Your task to perform on an android device: Open accessibility settings Image 0: 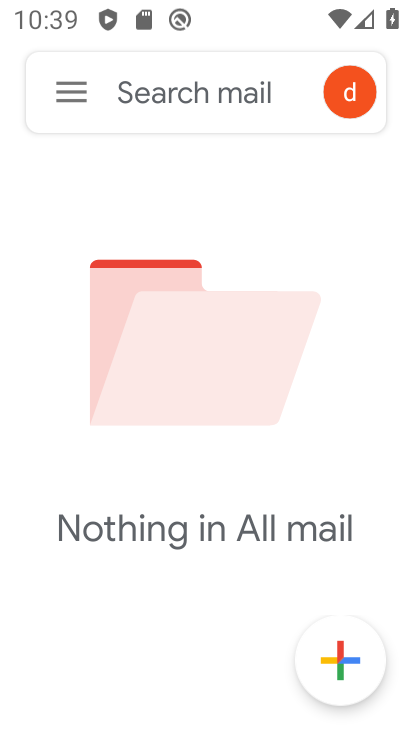
Step 0: press home button
Your task to perform on an android device: Open accessibility settings Image 1: 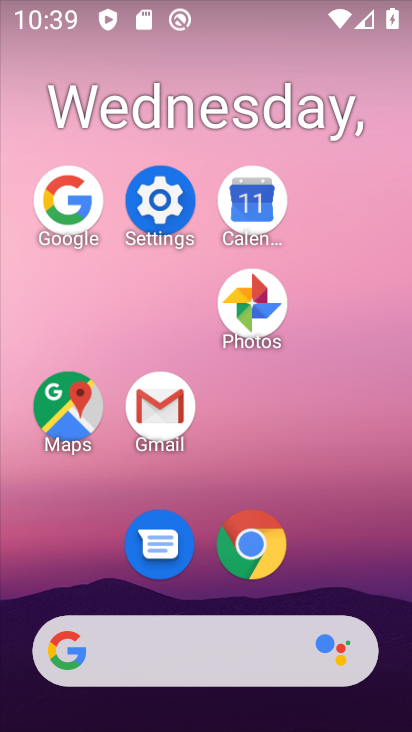
Step 1: click (174, 188)
Your task to perform on an android device: Open accessibility settings Image 2: 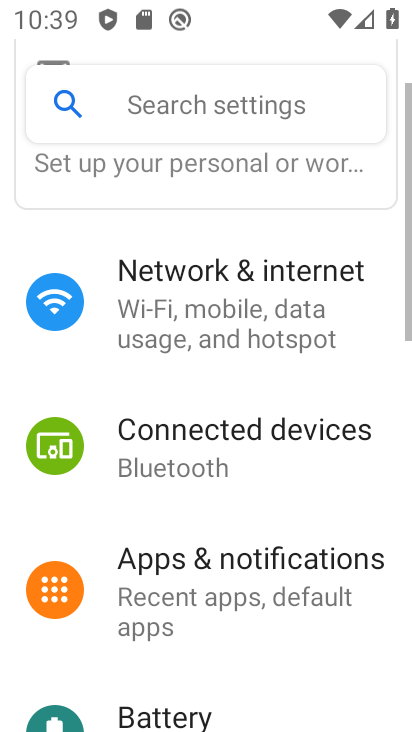
Step 2: drag from (270, 647) to (306, 186)
Your task to perform on an android device: Open accessibility settings Image 3: 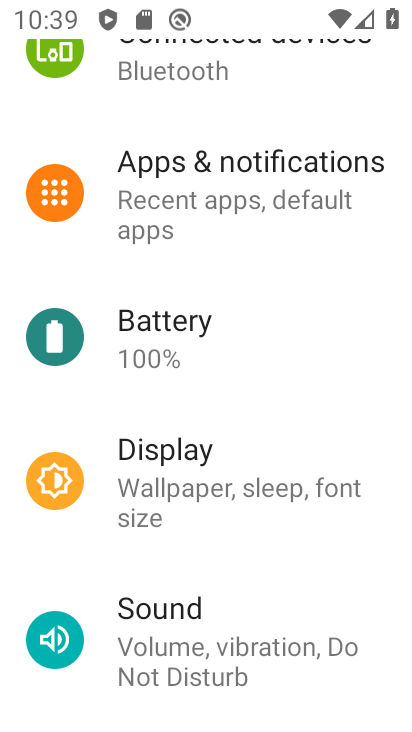
Step 3: drag from (276, 630) to (295, 194)
Your task to perform on an android device: Open accessibility settings Image 4: 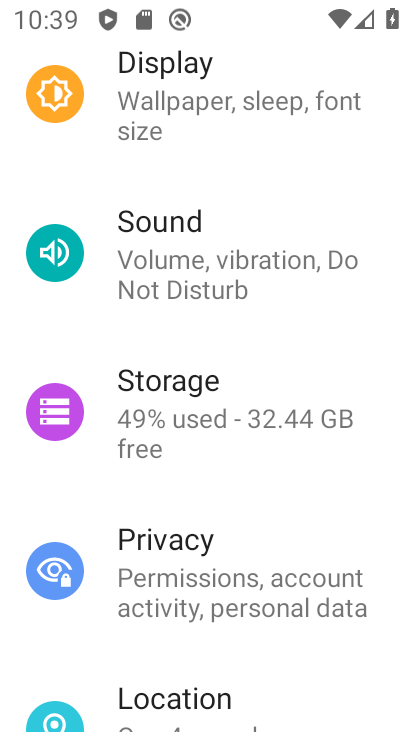
Step 4: drag from (246, 633) to (271, 223)
Your task to perform on an android device: Open accessibility settings Image 5: 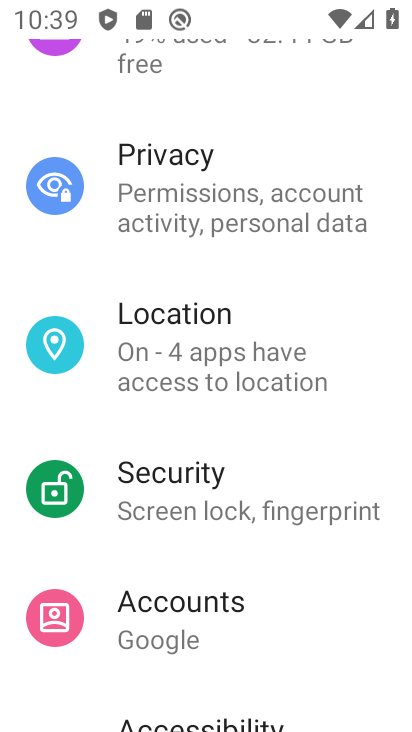
Step 5: drag from (288, 576) to (302, 216)
Your task to perform on an android device: Open accessibility settings Image 6: 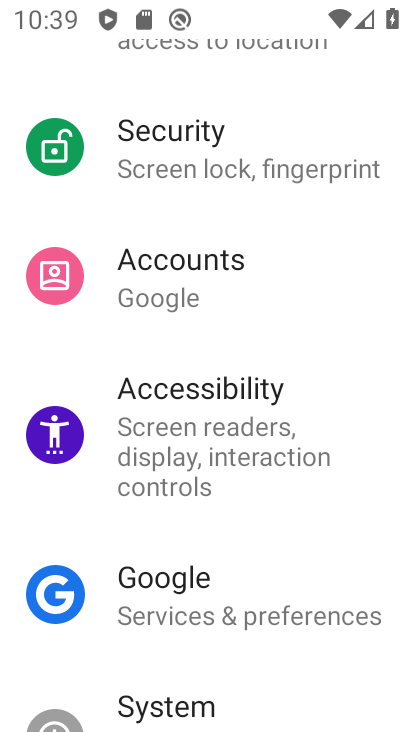
Step 6: drag from (246, 612) to (285, 337)
Your task to perform on an android device: Open accessibility settings Image 7: 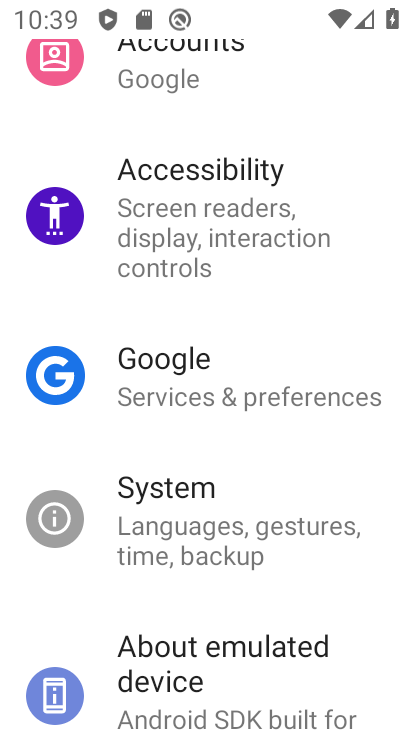
Step 7: click (236, 211)
Your task to perform on an android device: Open accessibility settings Image 8: 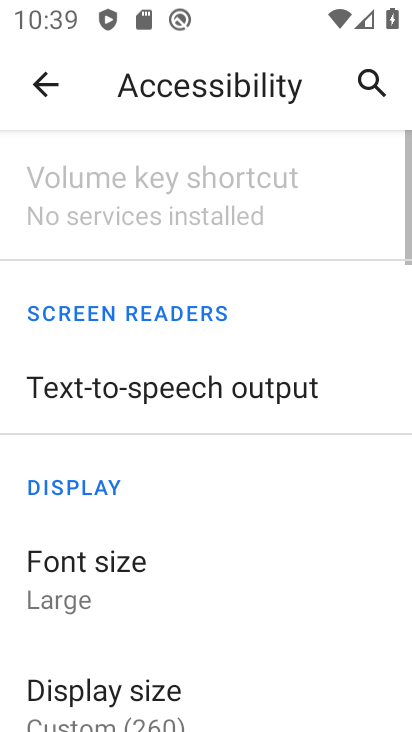
Step 8: task complete